Your task to perform on an android device: open the mobile data screen to see how much data has been used Image 0: 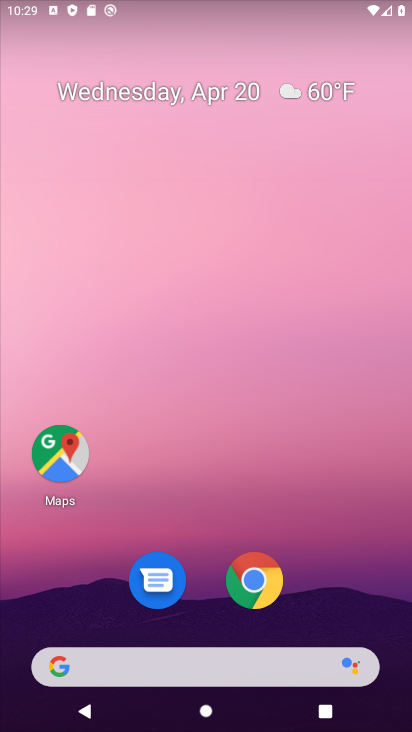
Step 0: drag from (241, 656) to (255, 112)
Your task to perform on an android device: open the mobile data screen to see how much data has been used Image 1: 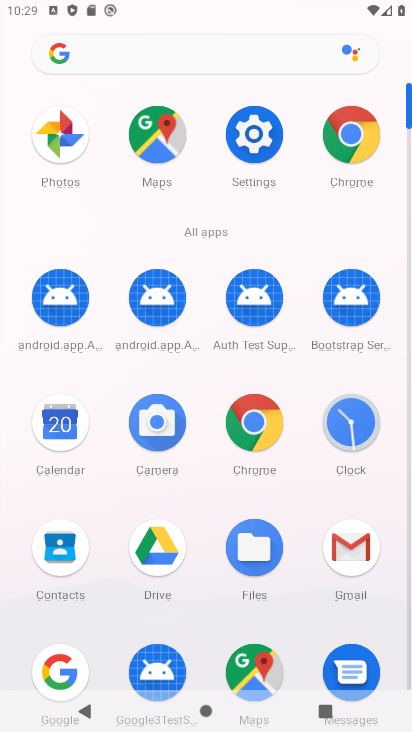
Step 1: click (255, 112)
Your task to perform on an android device: open the mobile data screen to see how much data has been used Image 2: 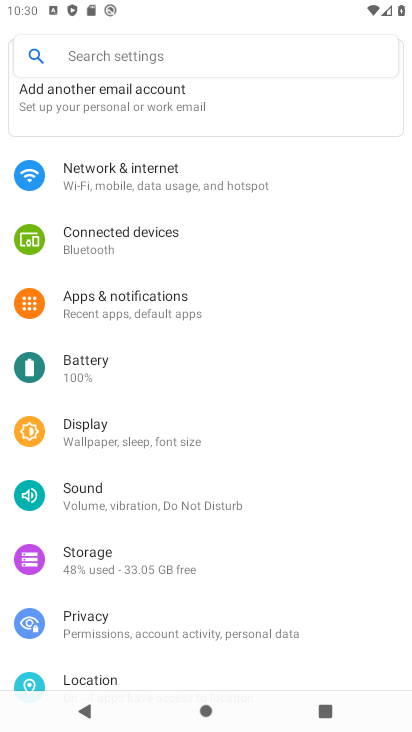
Step 2: click (105, 179)
Your task to perform on an android device: open the mobile data screen to see how much data has been used Image 3: 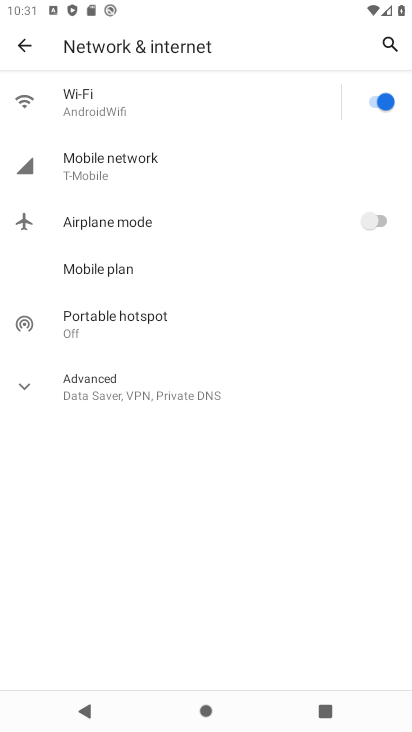
Step 3: click (101, 174)
Your task to perform on an android device: open the mobile data screen to see how much data has been used Image 4: 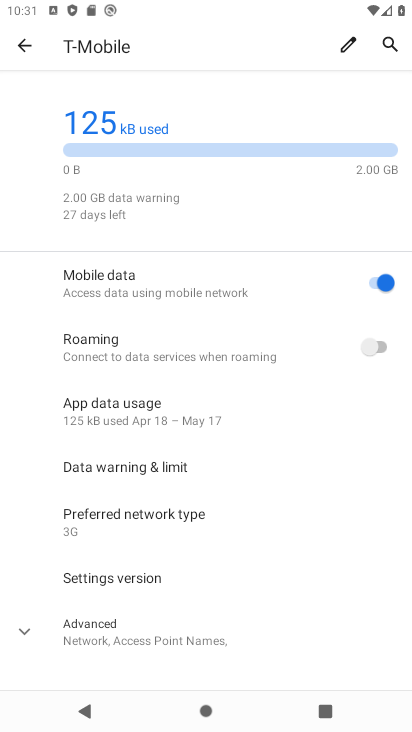
Step 4: task complete